Your task to perform on an android device: change the clock display to analog Image 0: 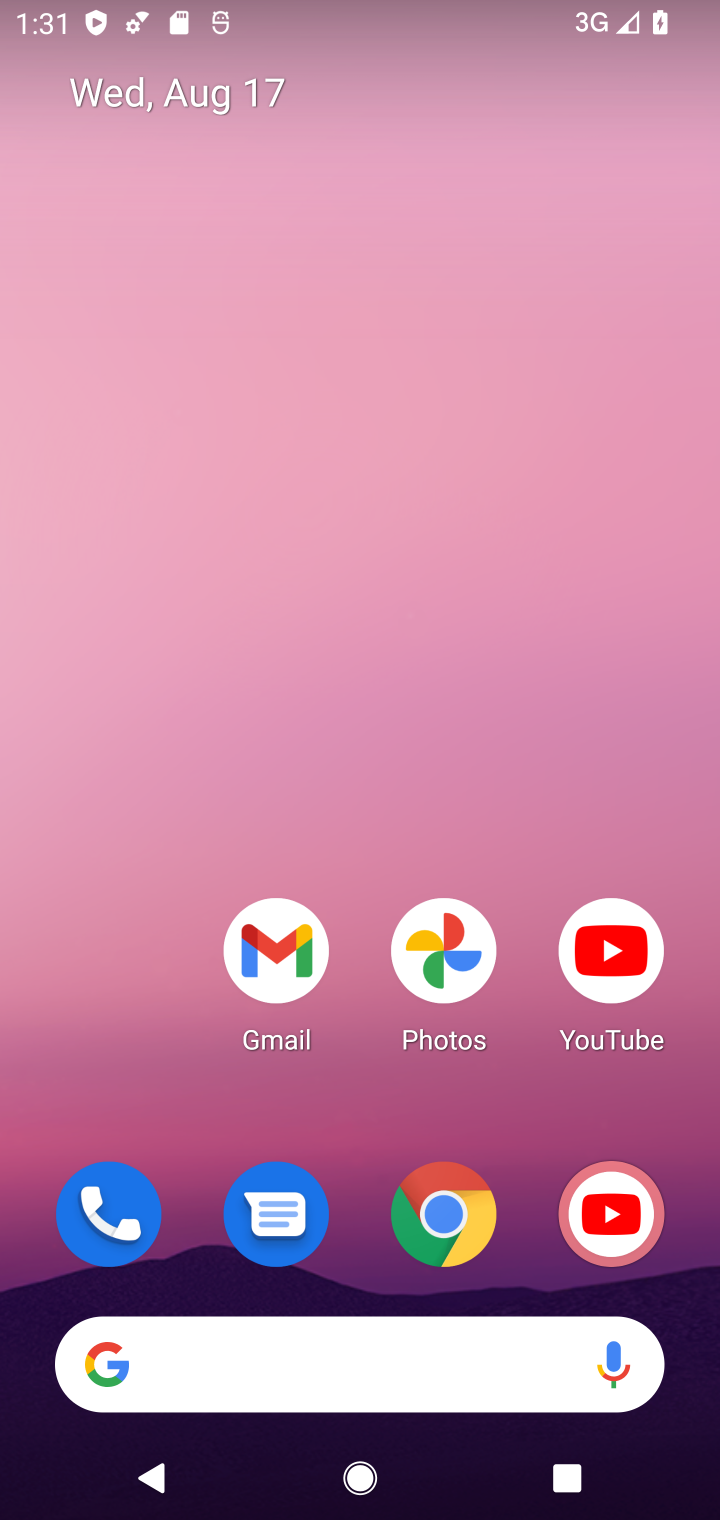
Step 0: drag from (353, 1251) to (306, 114)
Your task to perform on an android device: change the clock display to analog Image 1: 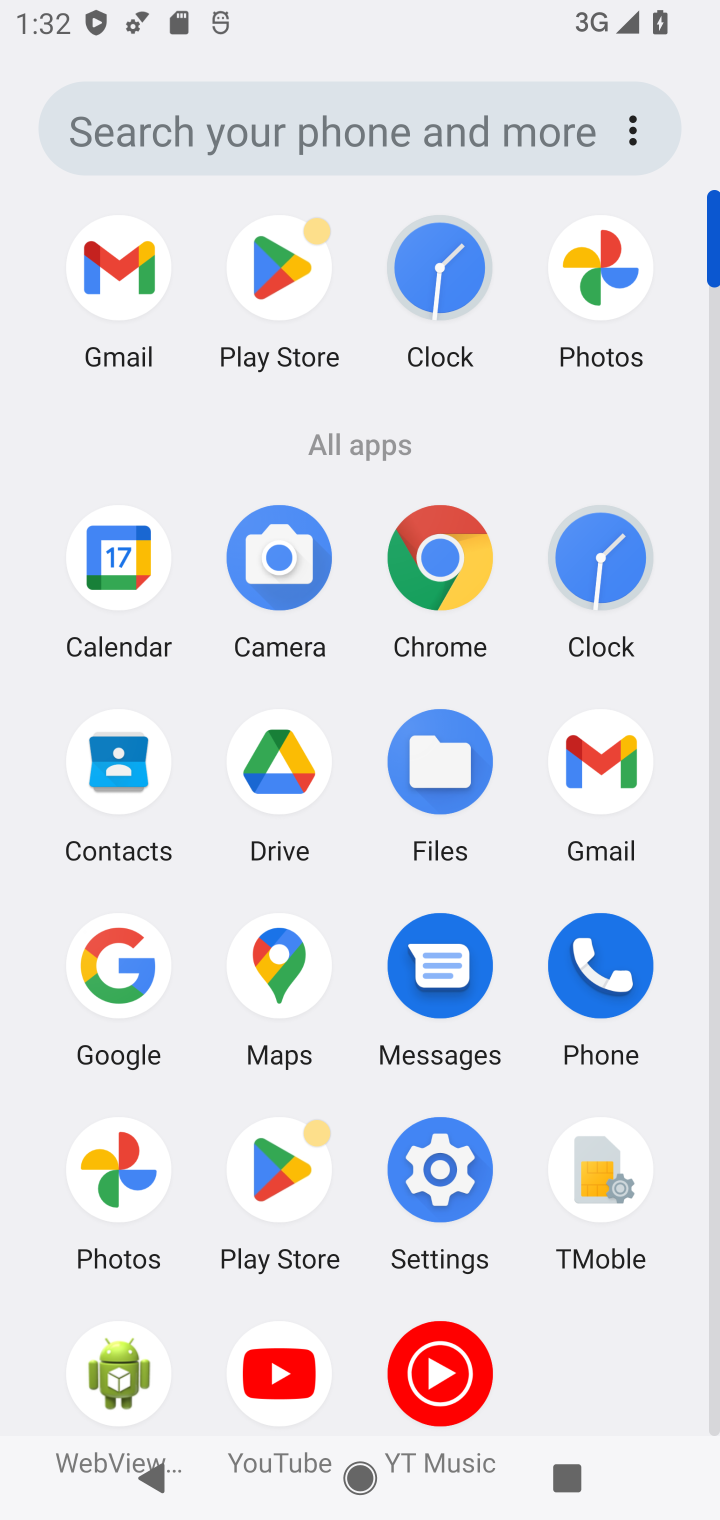
Step 1: click (595, 559)
Your task to perform on an android device: change the clock display to analog Image 2: 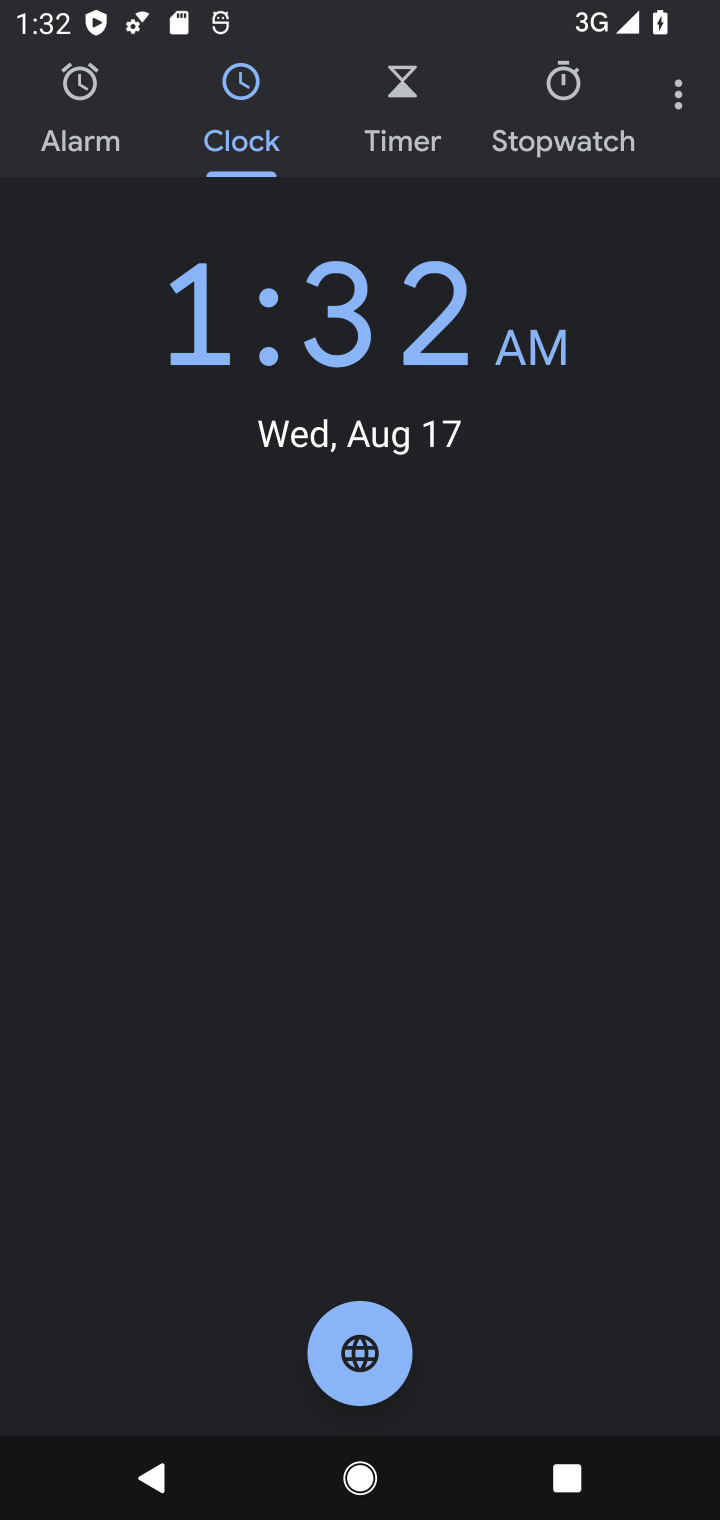
Step 2: click (681, 98)
Your task to perform on an android device: change the clock display to analog Image 3: 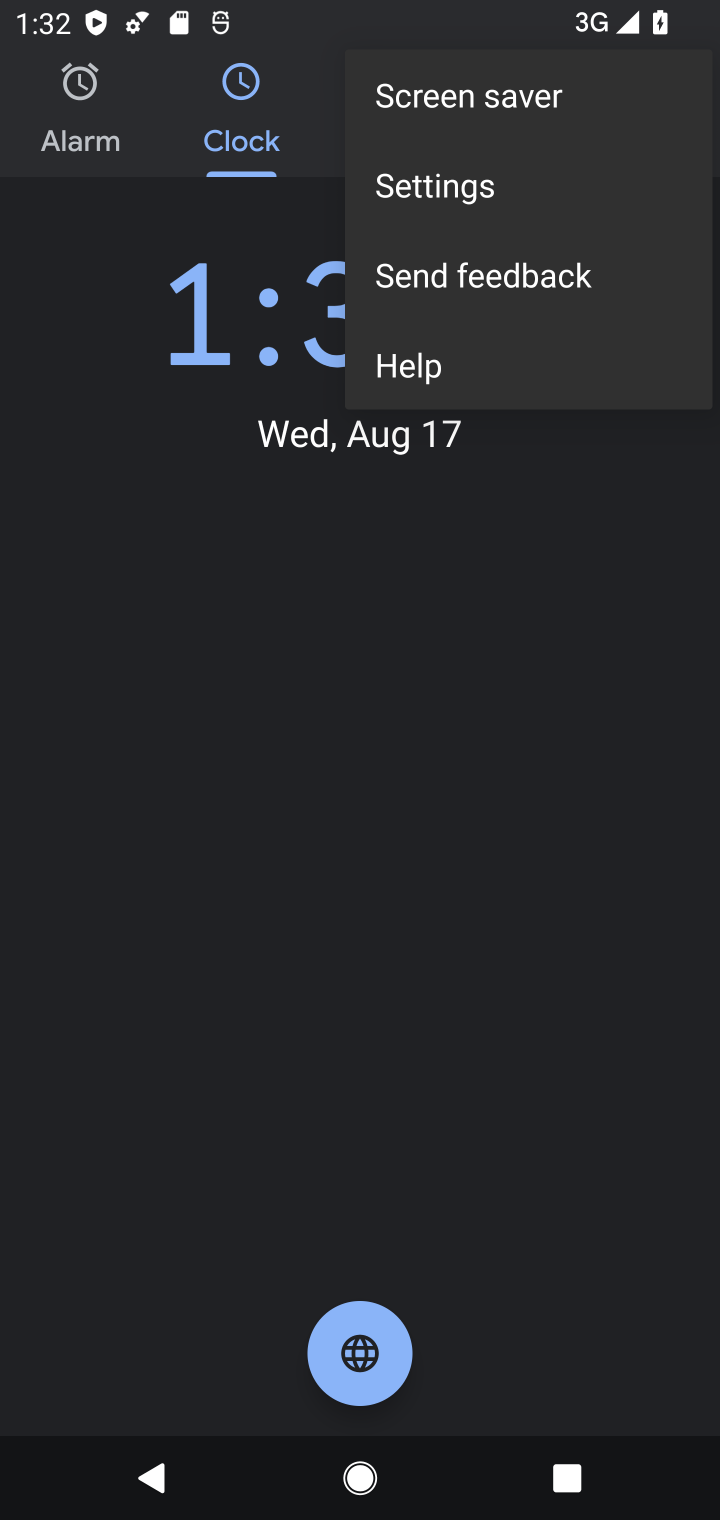
Step 3: click (442, 186)
Your task to perform on an android device: change the clock display to analog Image 4: 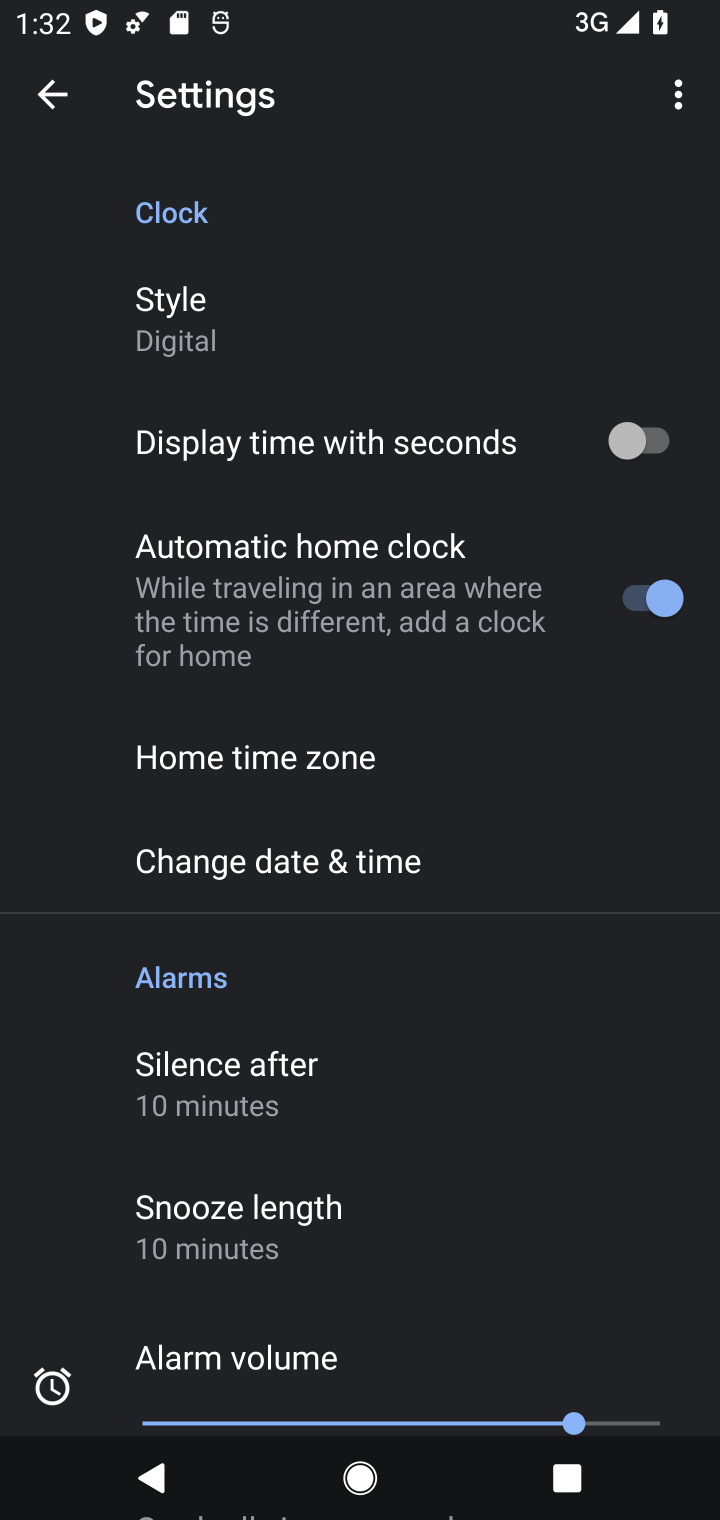
Step 4: click (173, 292)
Your task to perform on an android device: change the clock display to analog Image 5: 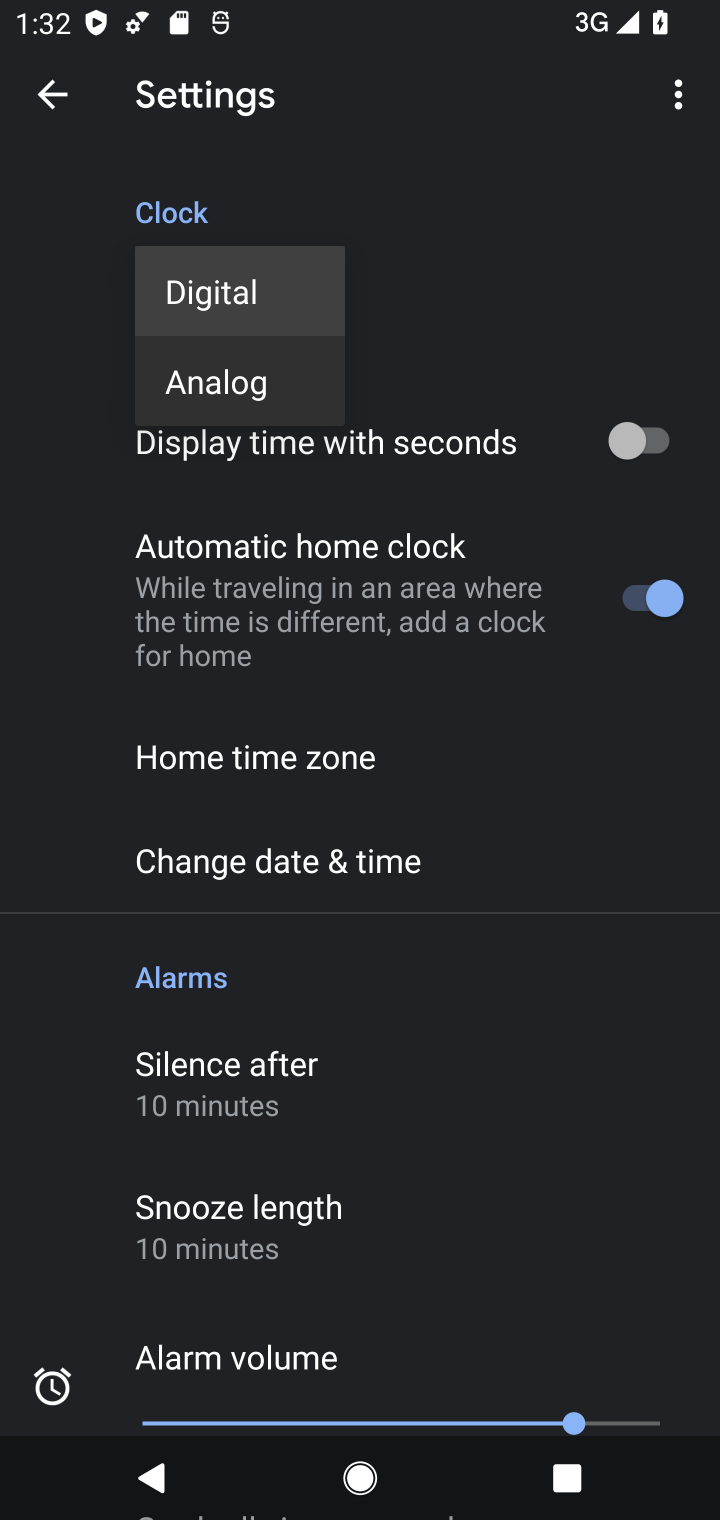
Step 5: click (209, 379)
Your task to perform on an android device: change the clock display to analog Image 6: 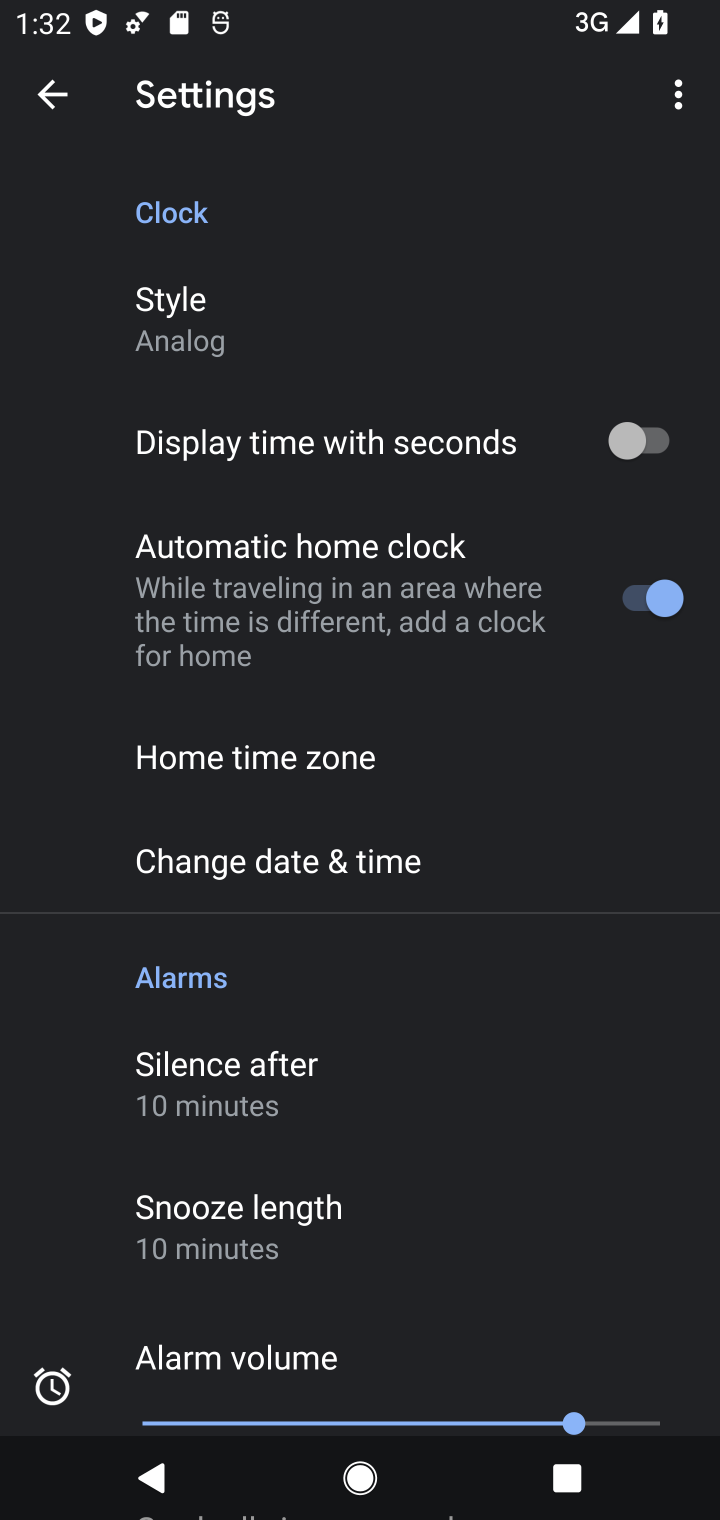
Step 6: task complete